Your task to perform on an android device: Open calendar and show me the second week of next month Image 0: 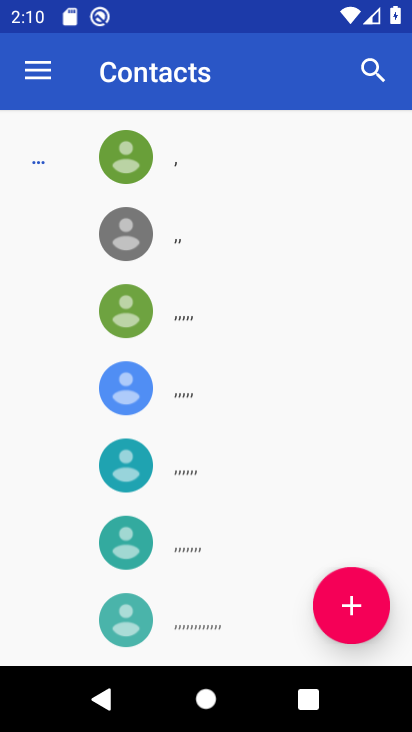
Step 0: press home button
Your task to perform on an android device: Open calendar and show me the second week of next month Image 1: 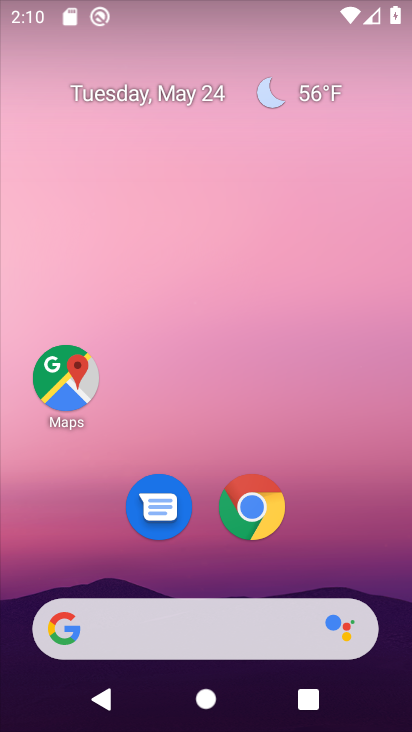
Step 1: press home button
Your task to perform on an android device: Open calendar and show me the second week of next month Image 2: 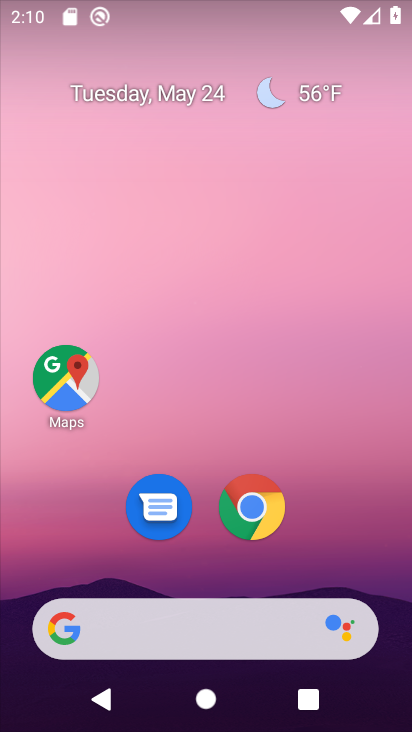
Step 2: drag from (209, 419) to (238, 81)
Your task to perform on an android device: Open calendar and show me the second week of next month Image 3: 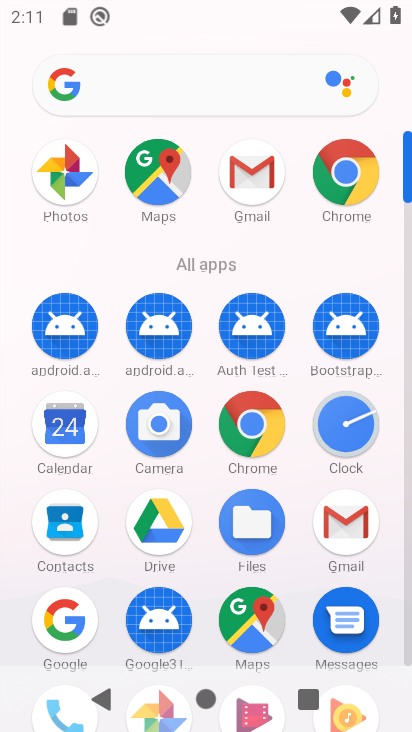
Step 3: click (53, 426)
Your task to perform on an android device: Open calendar and show me the second week of next month Image 4: 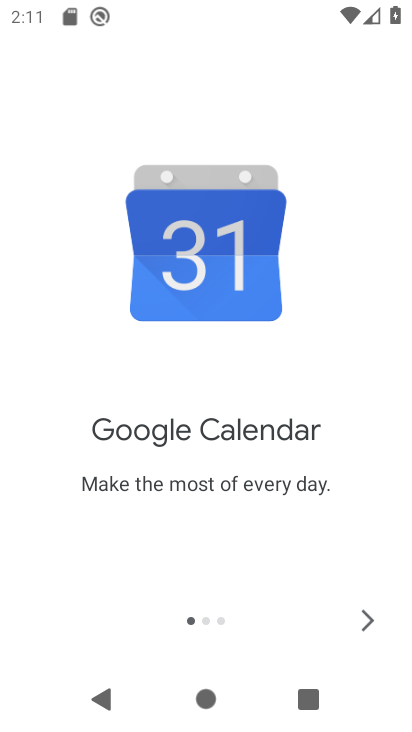
Step 4: click (362, 615)
Your task to perform on an android device: Open calendar and show me the second week of next month Image 5: 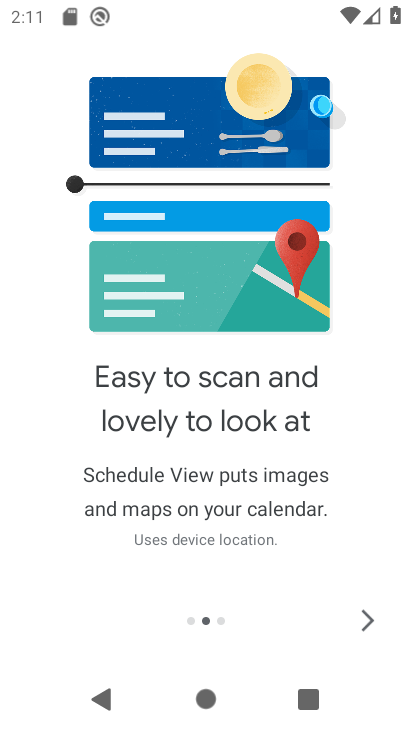
Step 5: click (362, 615)
Your task to perform on an android device: Open calendar and show me the second week of next month Image 6: 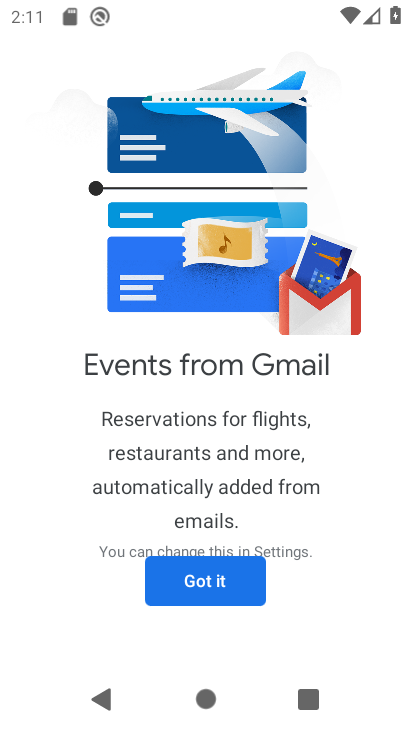
Step 6: click (173, 574)
Your task to perform on an android device: Open calendar and show me the second week of next month Image 7: 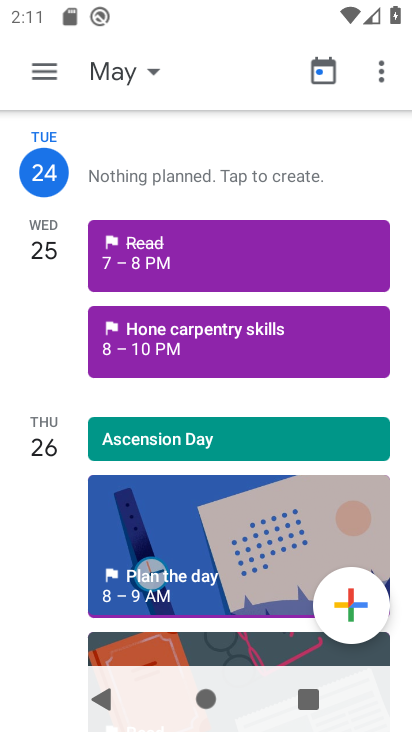
Step 7: drag from (42, 535) to (94, 136)
Your task to perform on an android device: Open calendar and show me the second week of next month Image 8: 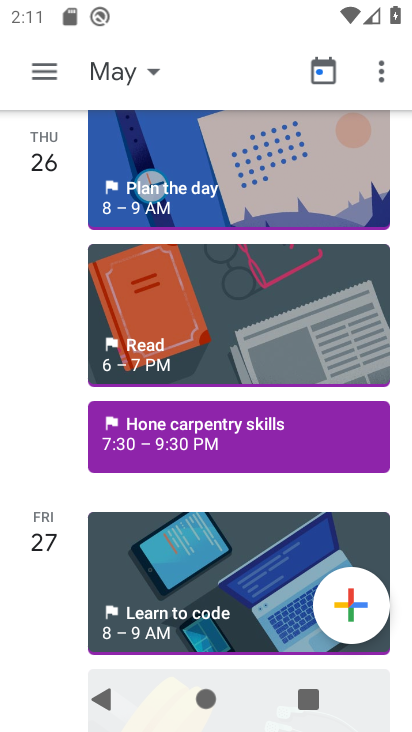
Step 8: click (152, 77)
Your task to perform on an android device: Open calendar and show me the second week of next month Image 9: 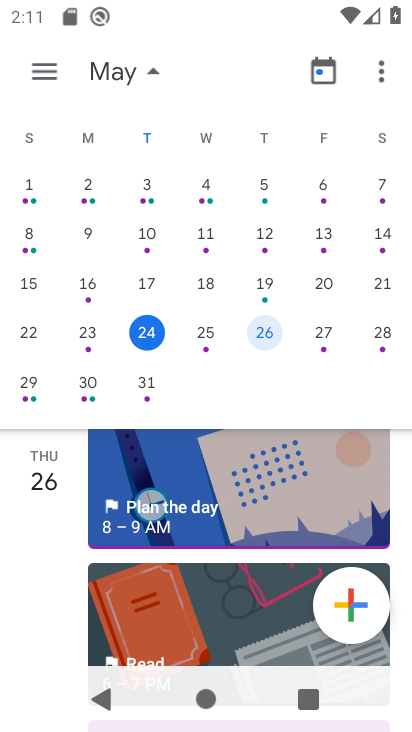
Step 9: drag from (294, 253) to (20, 349)
Your task to perform on an android device: Open calendar and show me the second week of next month Image 10: 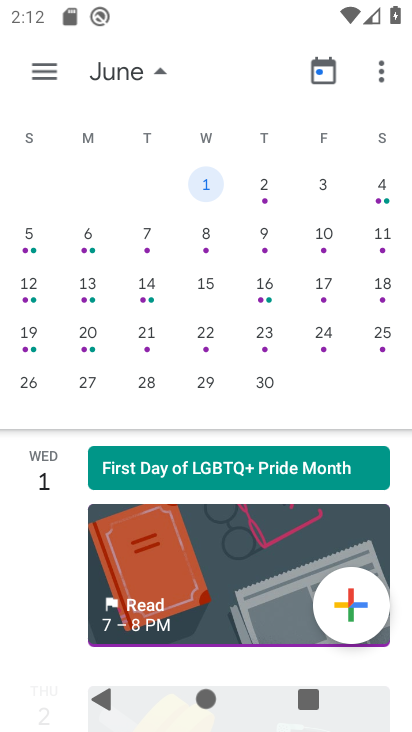
Step 10: click (23, 237)
Your task to perform on an android device: Open calendar and show me the second week of next month Image 11: 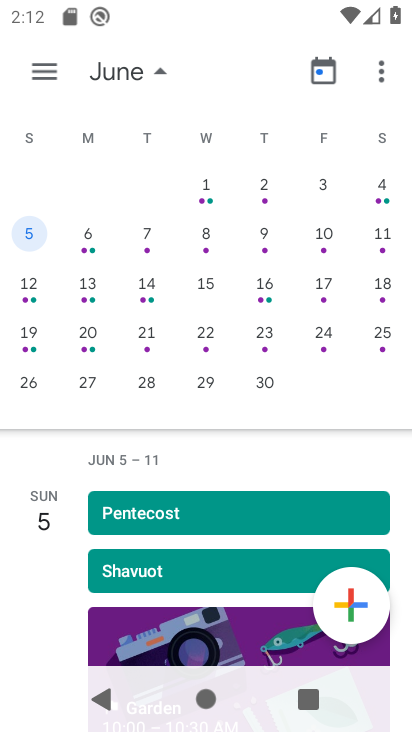
Step 11: click (156, 69)
Your task to perform on an android device: Open calendar and show me the second week of next month Image 12: 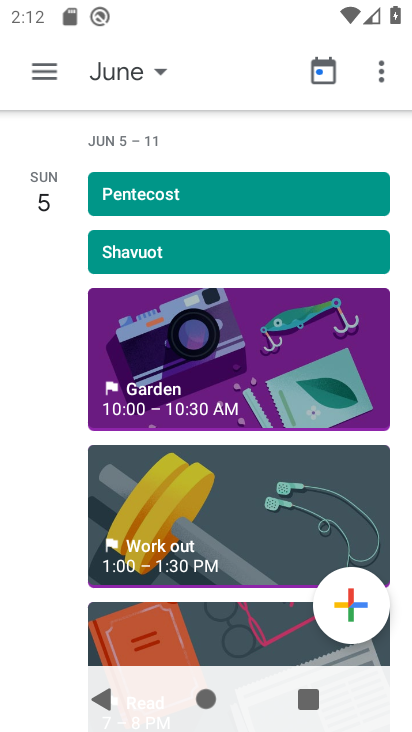
Step 12: task complete